Your task to perform on an android device: set the timer Image 0: 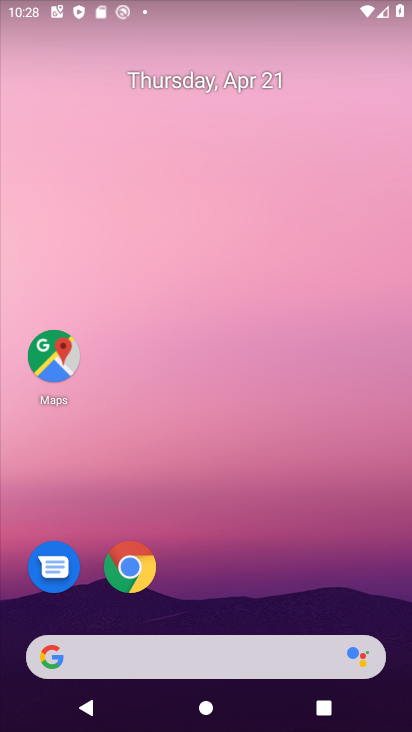
Step 0: drag from (226, 607) to (274, 155)
Your task to perform on an android device: set the timer Image 1: 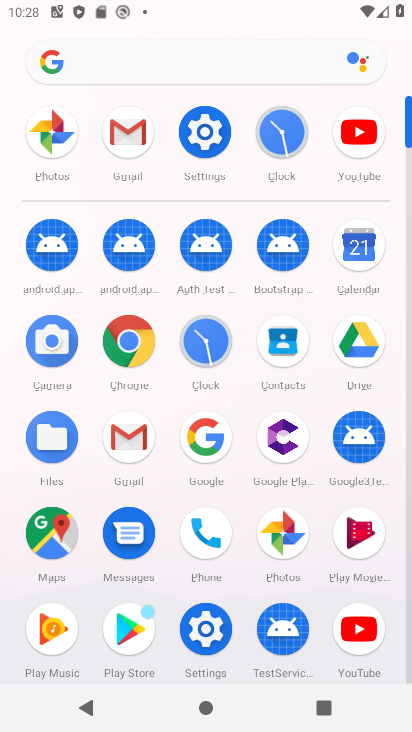
Step 1: click (199, 349)
Your task to perform on an android device: set the timer Image 2: 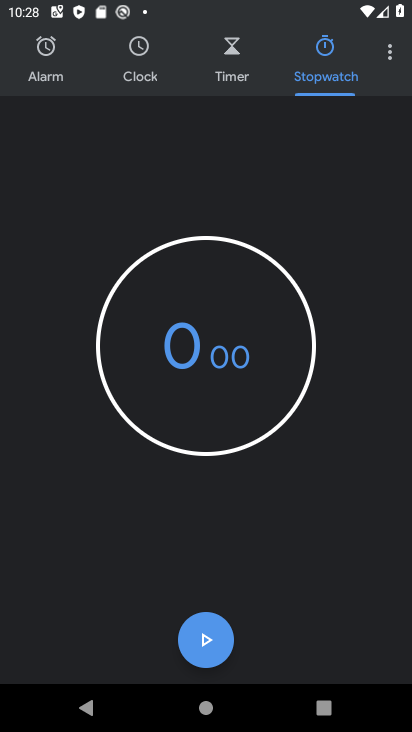
Step 2: click (221, 71)
Your task to perform on an android device: set the timer Image 3: 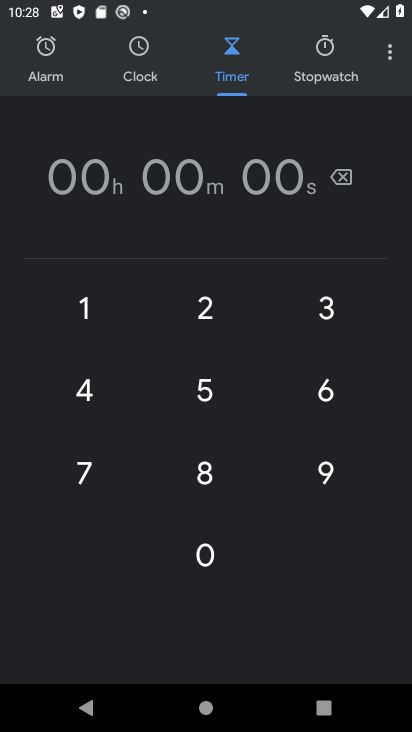
Step 3: click (205, 347)
Your task to perform on an android device: set the timer Image 4: 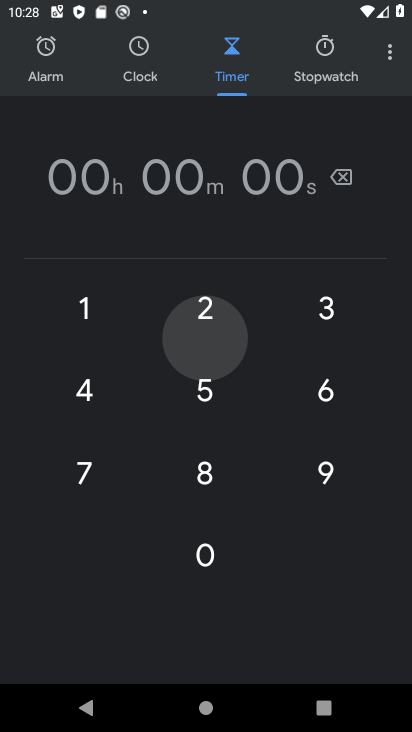
Step 4: click (213, 378)
Your task to perform on an android device: set the timer Image 5: 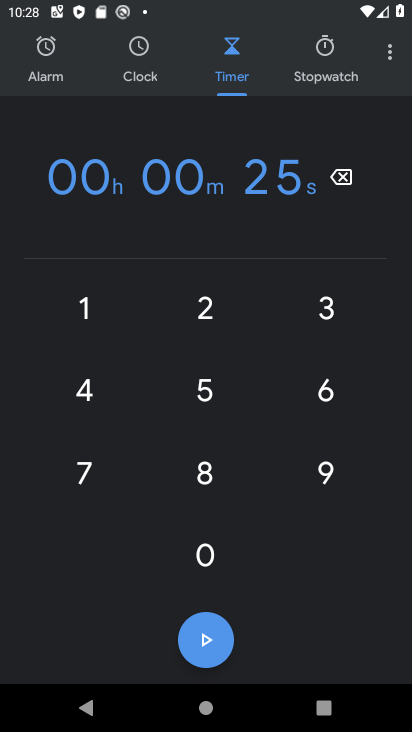
Step 5: click (99, 467)
Your task to perform on an android device: set the timer Image 6: 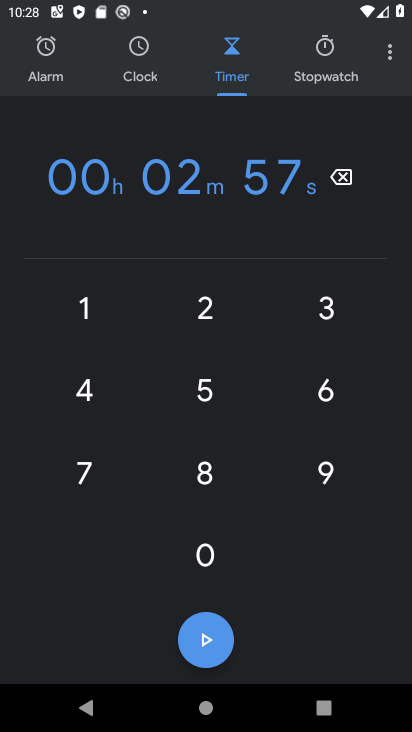
Step 6: click (211, 630)
Your task to perform on an android device: set the timer Image 7: 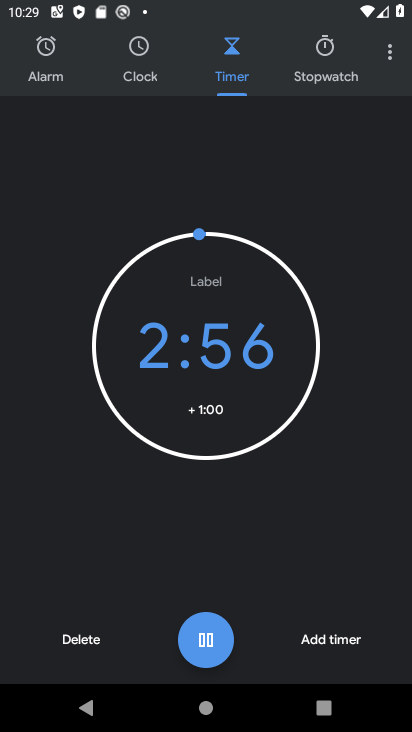
Step 7: task complete